Your task to perform on an android device: Add "logitech g pro" to the cart on amazon.com Image 0: 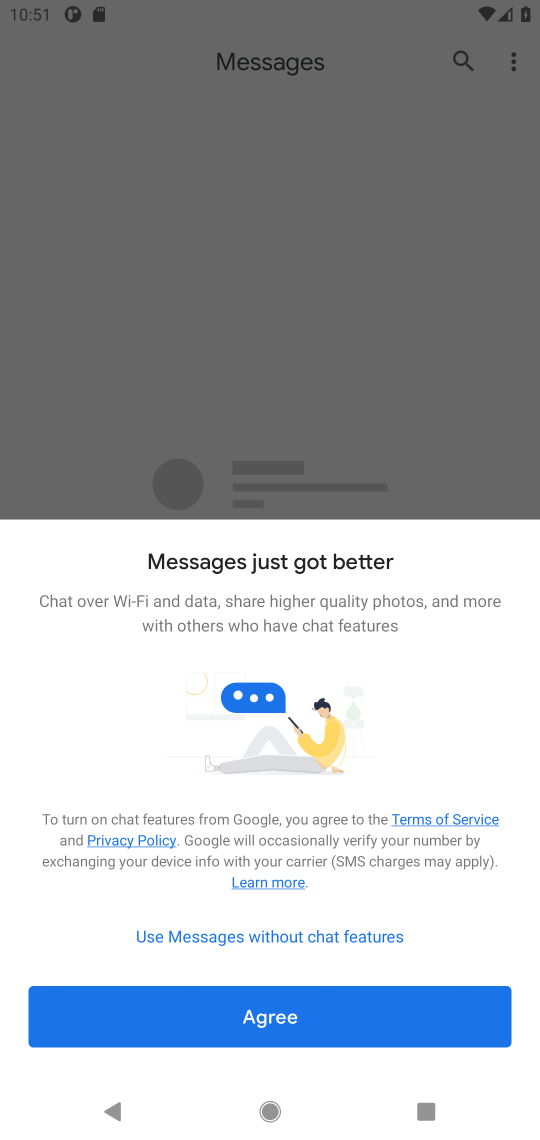
Step 0: press home button
Your task to perform on an android device: Add "logitech g pro" to the cart on amazon.com Image 1: 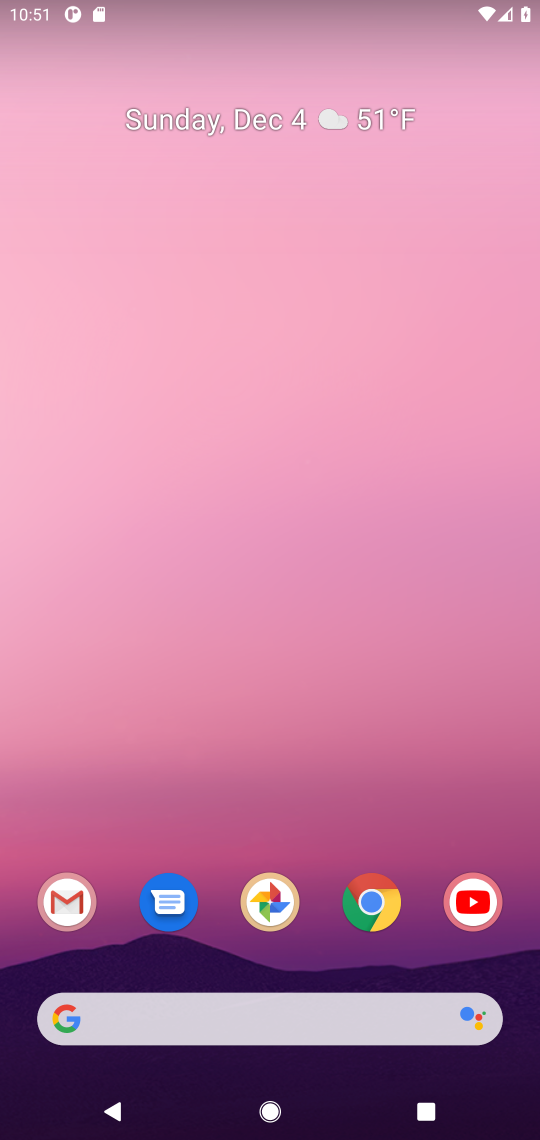
Step 1: click (366, 914)
Your task to perform on an android device: Add "logitech g pro" to the cart on amazon.com Image 2: 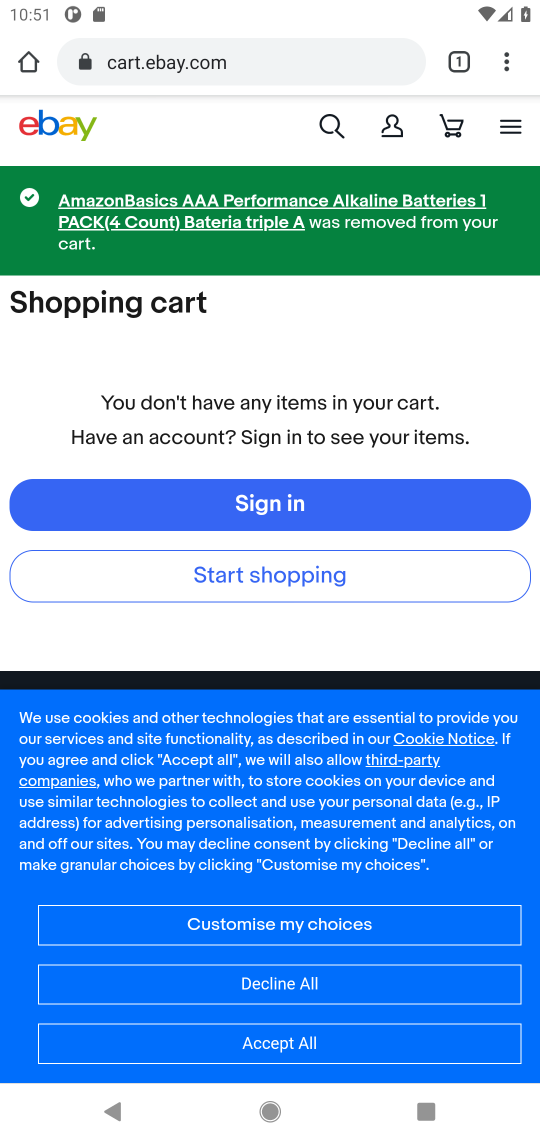
Step 2: click (186, 55)
Your task to perform on an android device: Add "logitech g pro" to the cart on amazon.com Image 3: 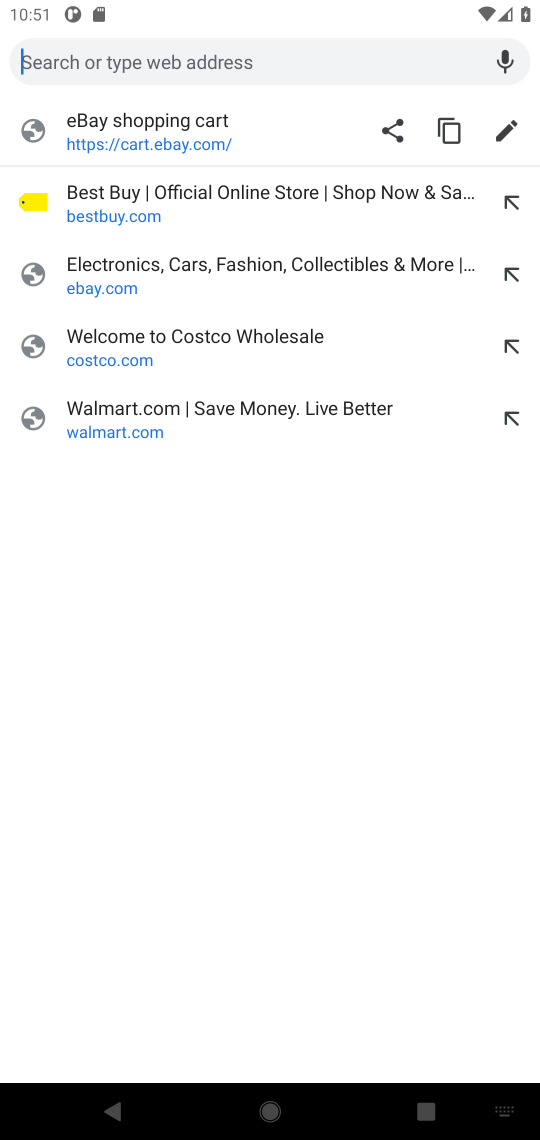
Step 3: type "amazon"
Your task to perform on an android device: Add "logitech g pro" to the cart on amazon.com Image 4: 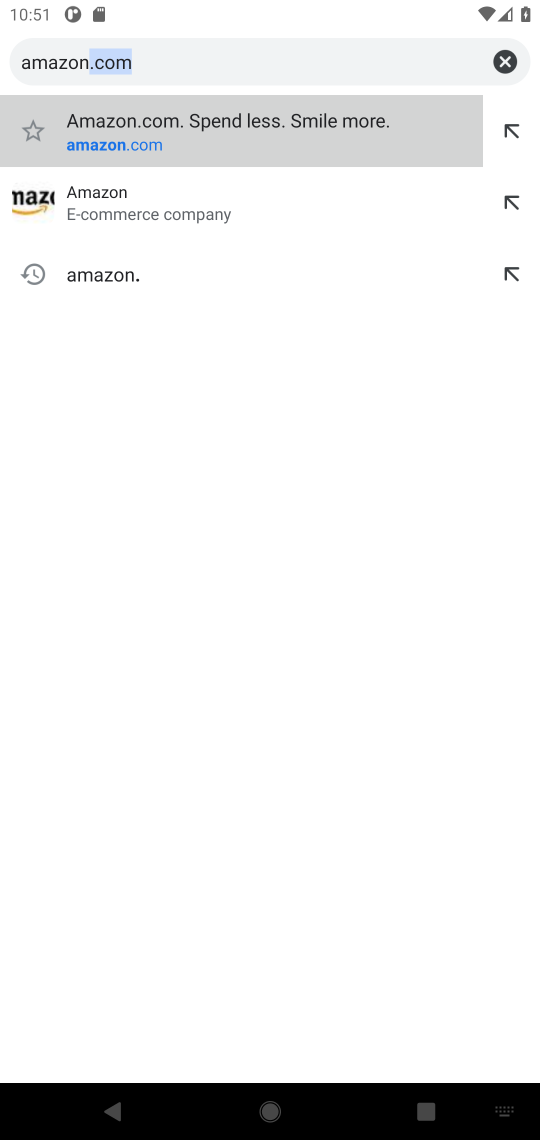
Step 4: click (123, 191)
Your task to perform on an android device: Add "logitech g pro" to the cart on amazon.com Image 5: 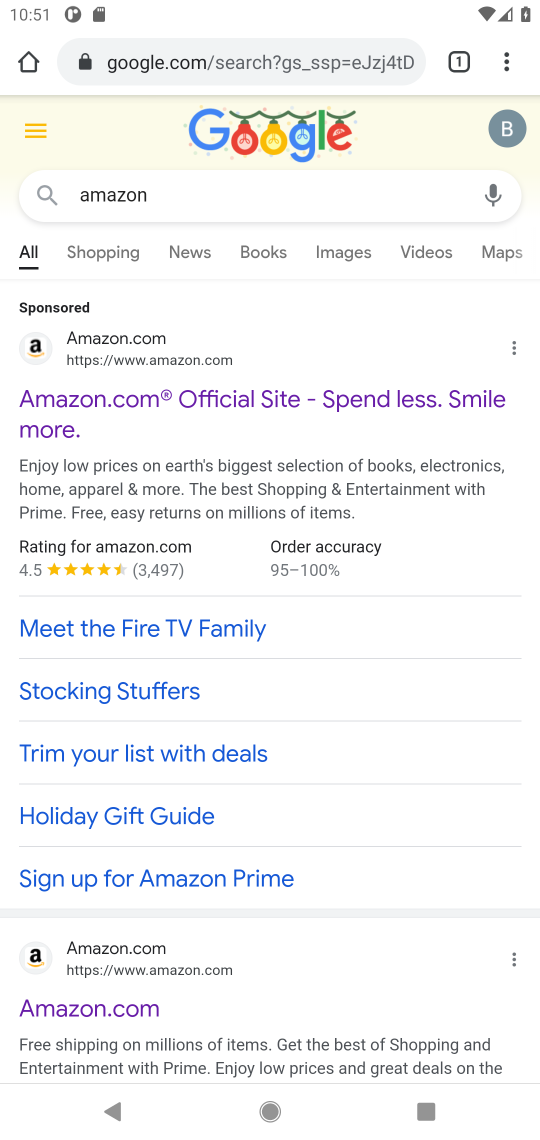
Step 5: click (179, 417)
Your task to perform on an android device: Add "logitech g pro" to the cart on amazon.com Image 6: 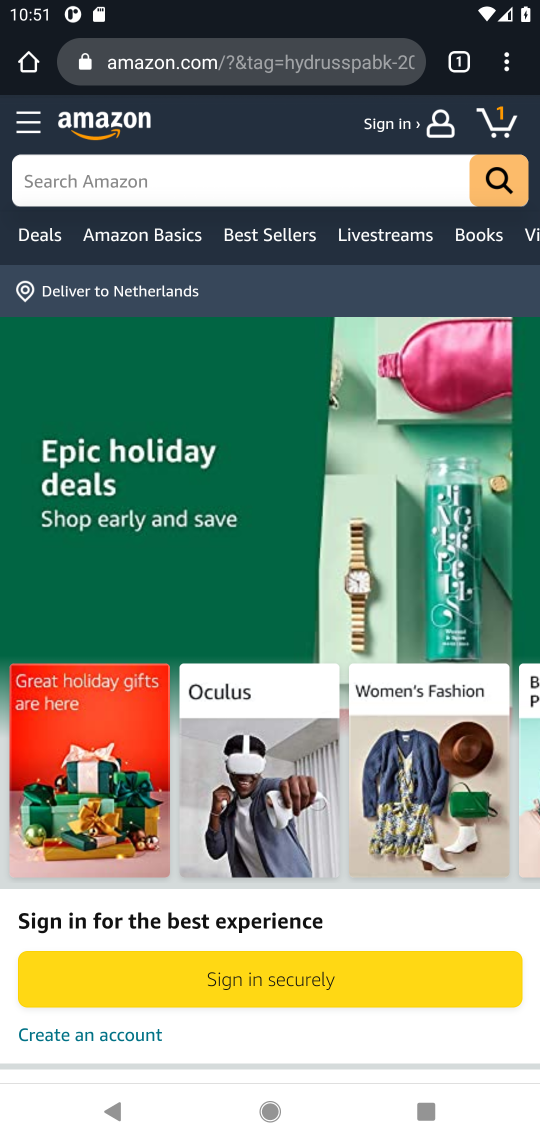
Step 6: click (258, 189)
Your task to perform on an android device: Add "logitech g pro" to the cart on amazon.com Image 7: 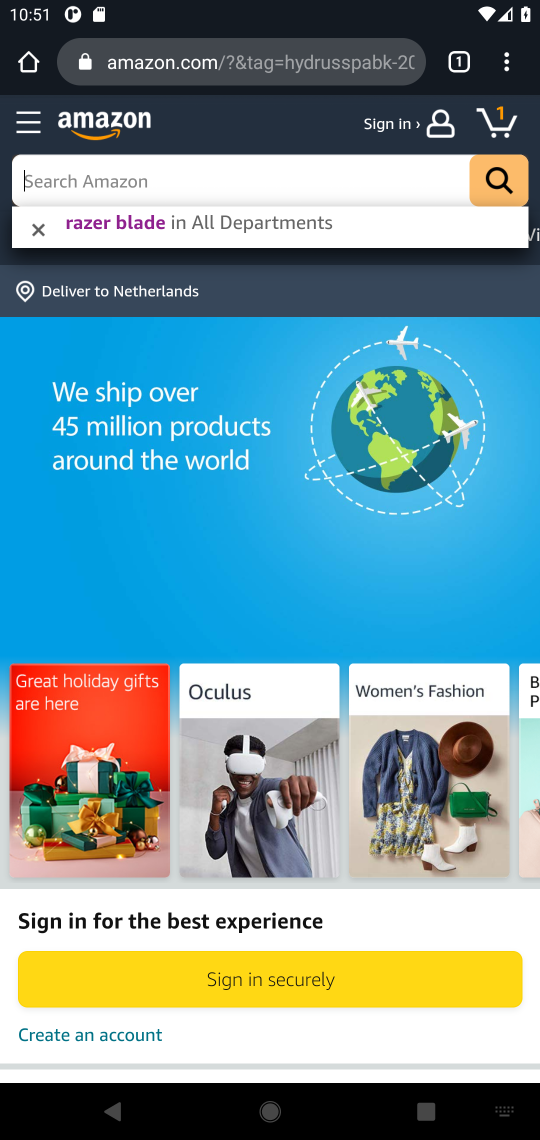
Step 7: type "logitech g pro"
Your task to perform on an android device: Add "logitech g pro" to the cart on amazon.com Image 8: 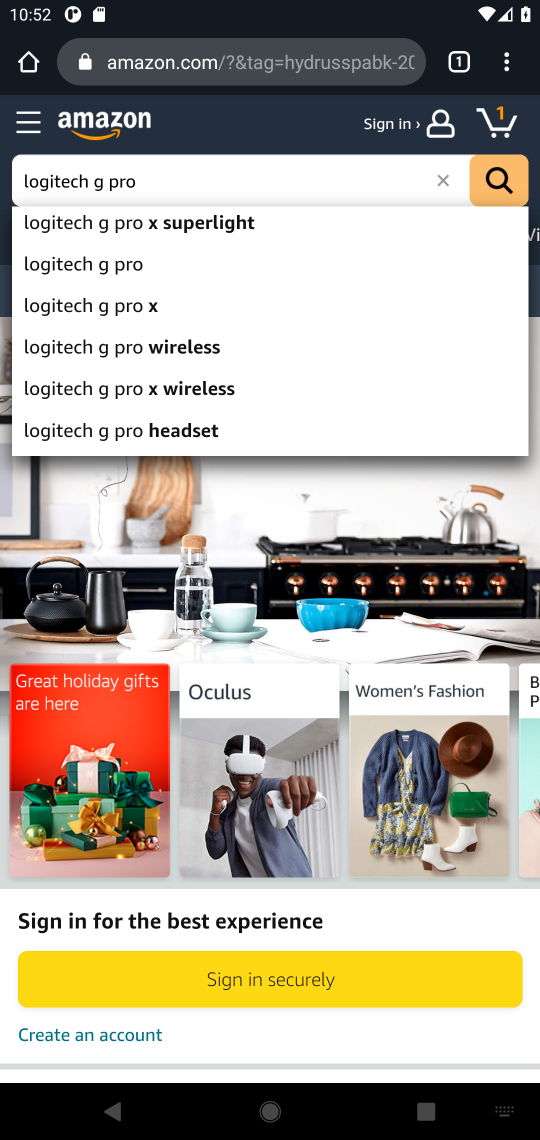
Step 8: click (486, 190)
Your task to perform on an android device: Add "logitech g pro" to the cart on amazon.com Image 9: 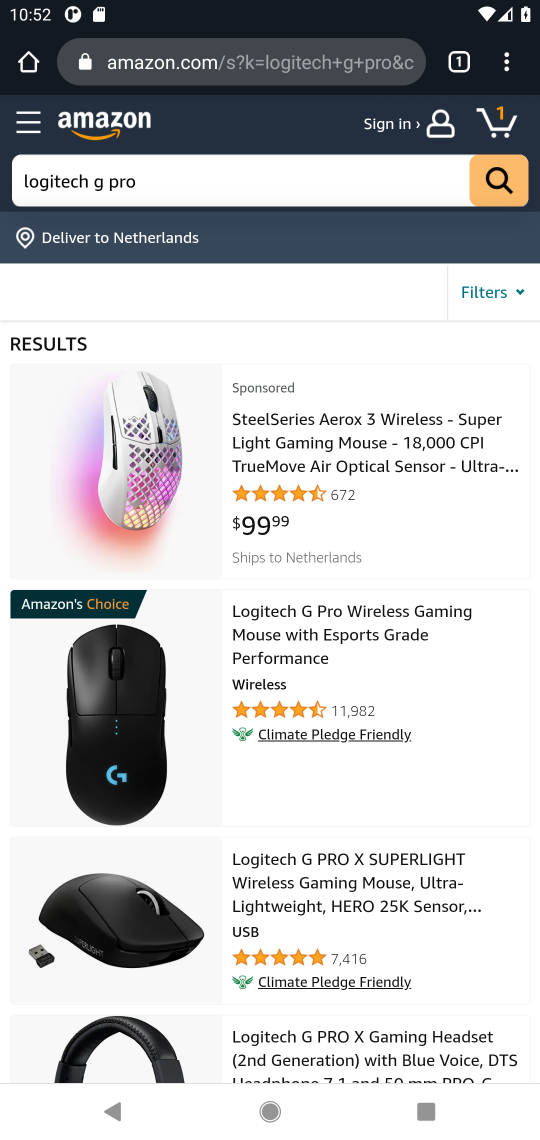
Step 9: click (347, 634)
Your task to perform on an android device: Add "logitech g pro" to the cart on amazon.com Image 10: 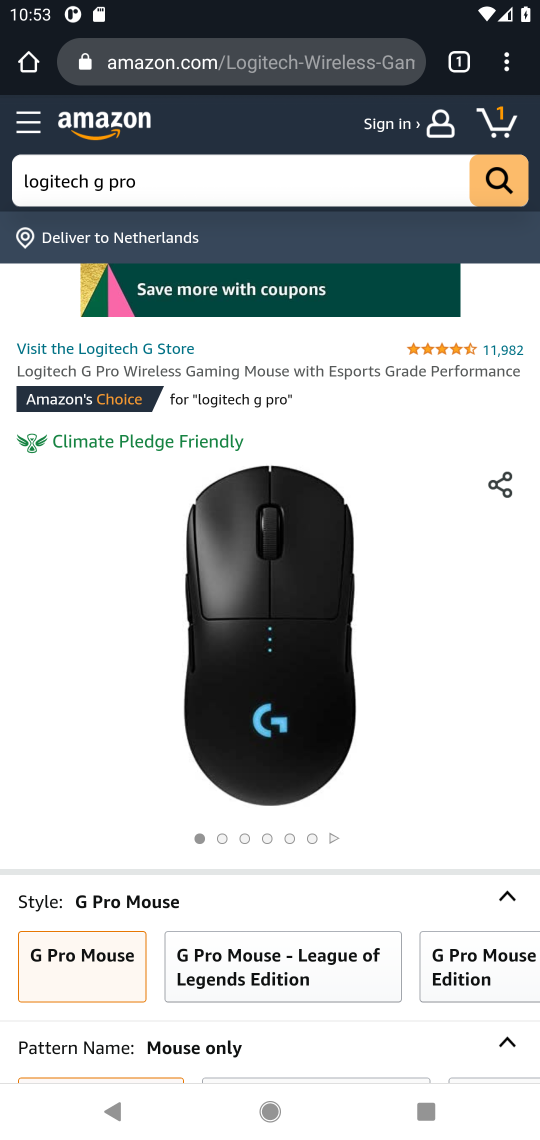
Step 10: drag from (242, 912) to (260, 261)
Your task to perform on an android device: Add "logitech g pro" to the cart on amazon.com Image 11: 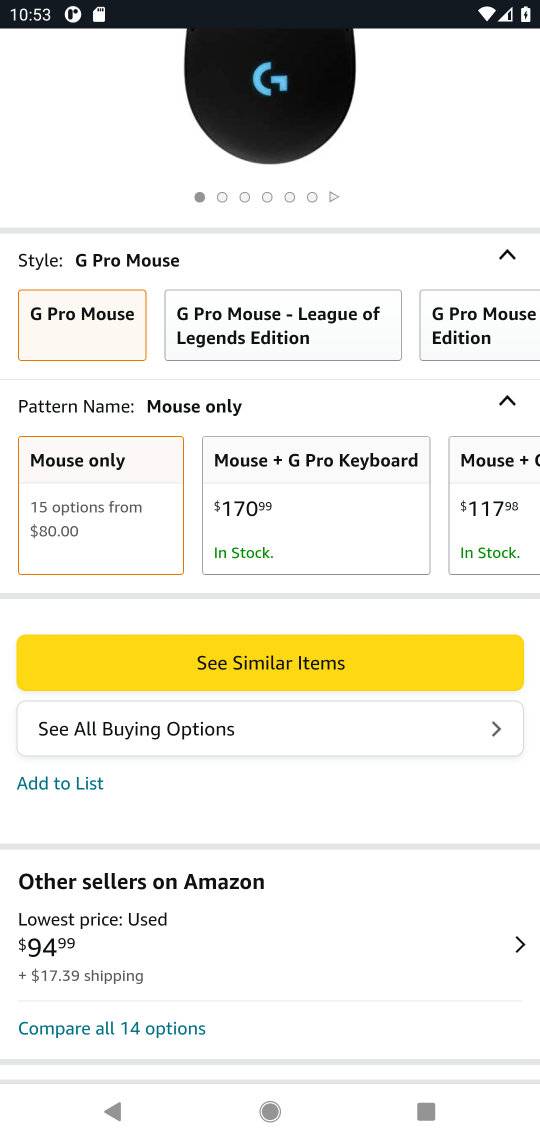
Step 11: click (269, 672)
Your task to perform on an android device: Add "logitech g pro" to the cart on amazon.com Image 12: 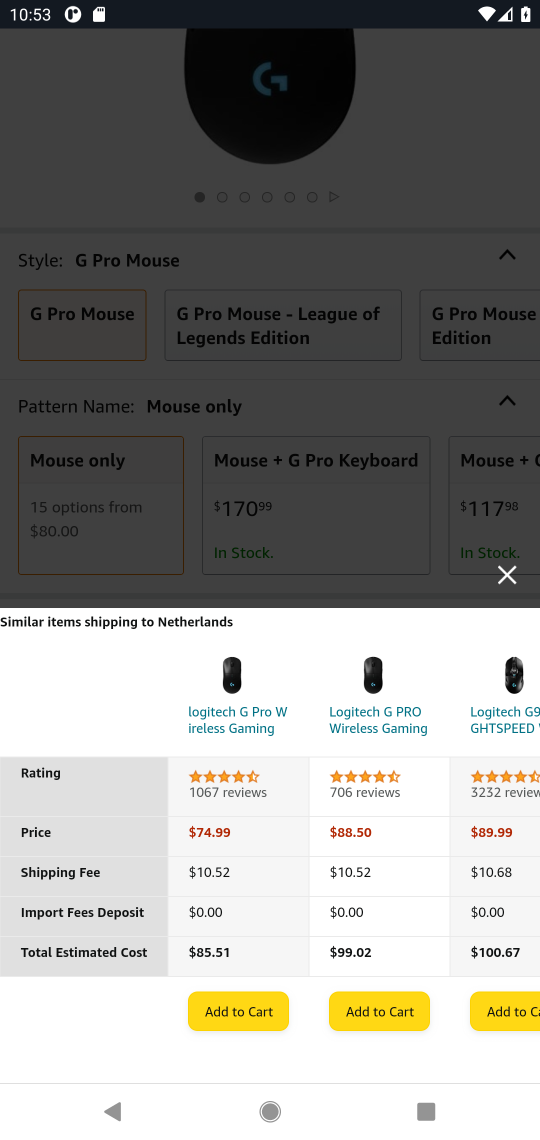
Step 12: click (241, 999)
Your task to perform on an android device: Add "logitech g pro" to the cart on amazon.com Image 13: 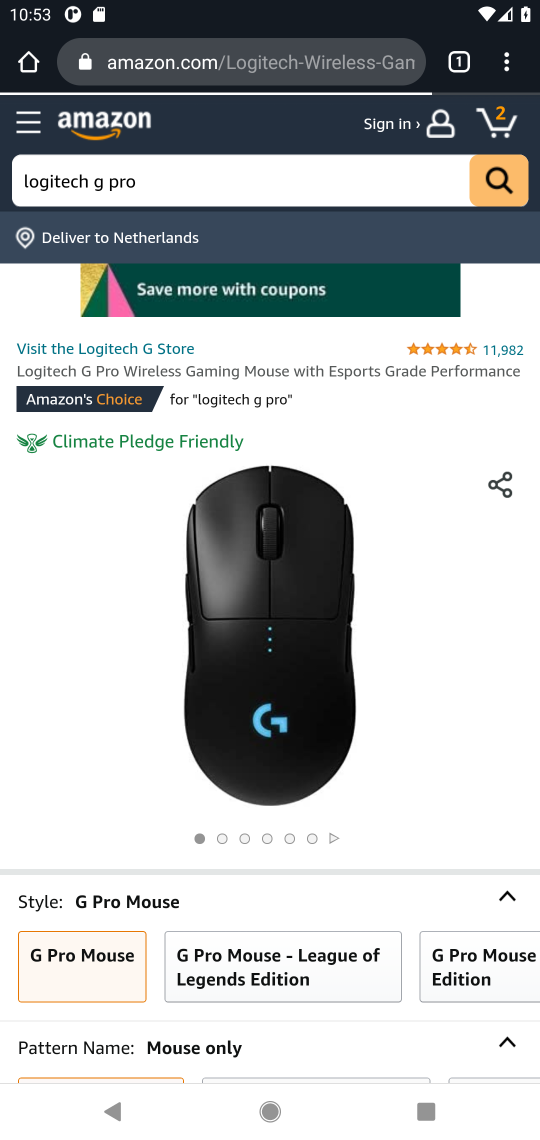
Step 13: task complete